Your task to perform on an android device: turn off wifi Image 0: 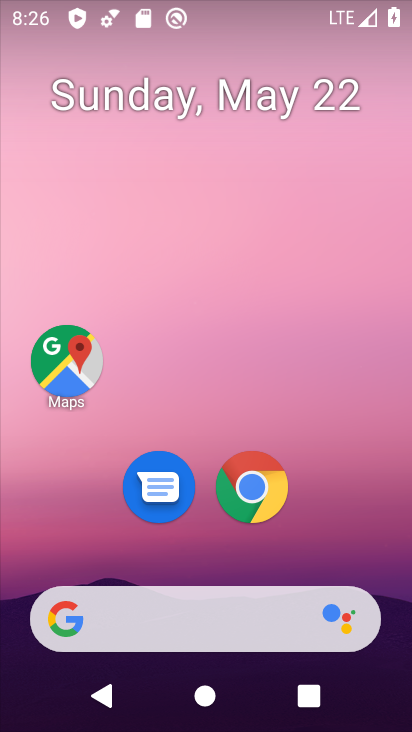
Step 0: drag from (328, 439) to (123, 0)
Your task to perform on an android device: turn off wifi Image 1: 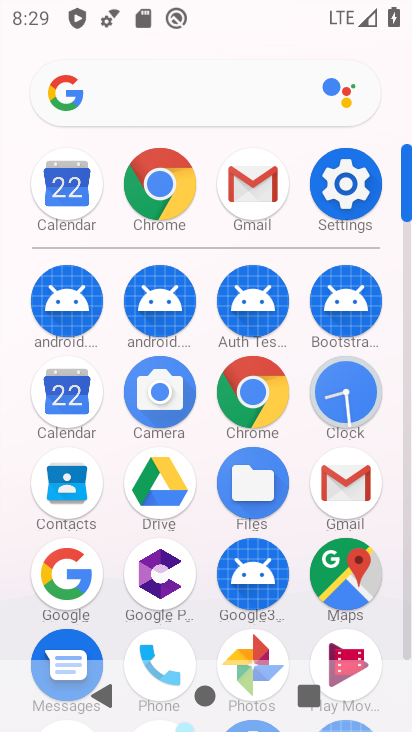
Step 1: click (350, 201)
Your task to perform on an android device: turn off wifi Image 2: 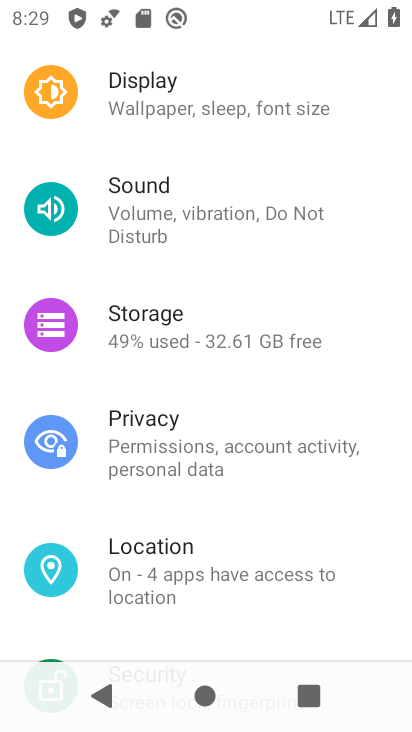
Step 2: drag from (227, 308) to (268, 680)
Your task to perform on an android device: turn off wifi Image 3: 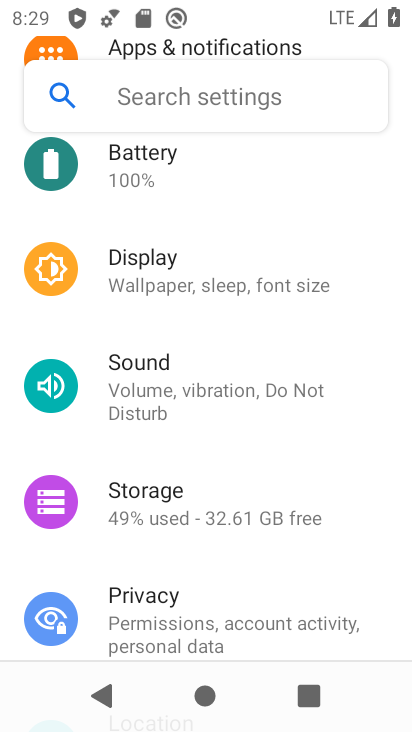
Step 3: drag from (290, 271) to (275, 729)
Your task to perform on an android device: turn off wifi Image 4: 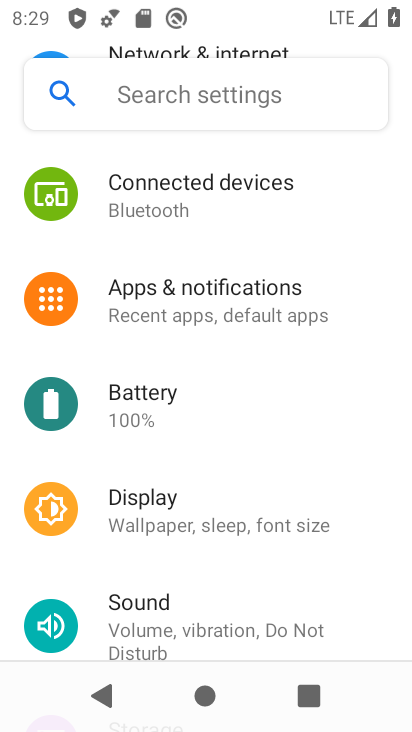
Step 4: drag from (231, 493) to (286, 696)
Your task to perform on an android device: turn off wifi Image 5: 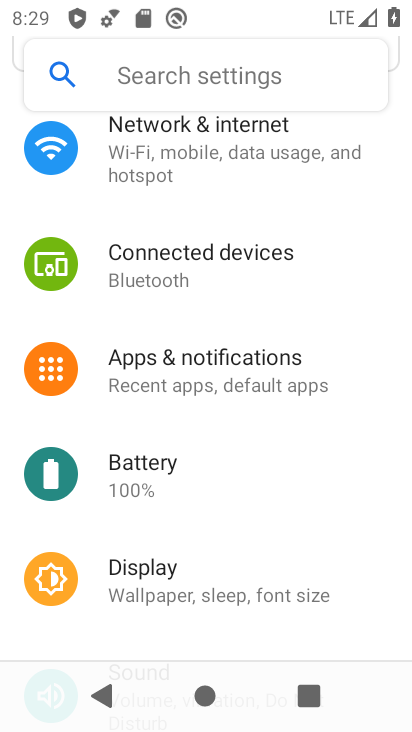
Step 5: click (170, 154)
Your task to perform on an android device: turn off wifi Image 6: 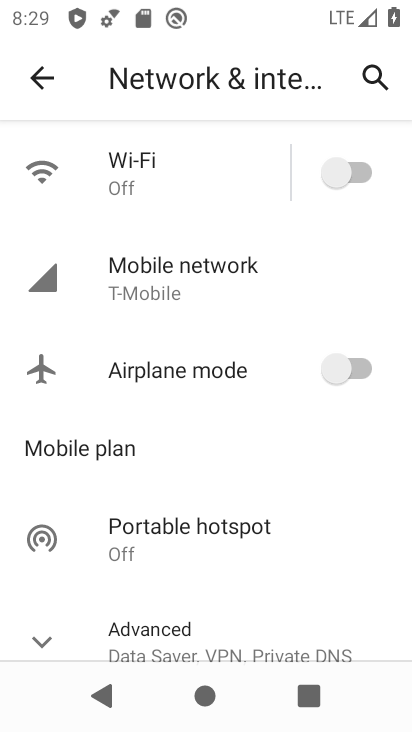
Step 6: task complete